Your task to perform on an android device: Toggle the flashlight Image 0: 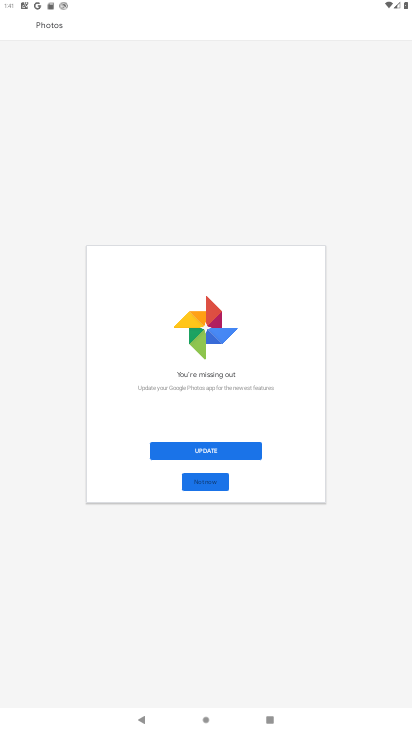
Step 0: drag from (301, 40) to (348, 640)
Your task to perform on an android device: Toggle the flashlight Image 1: 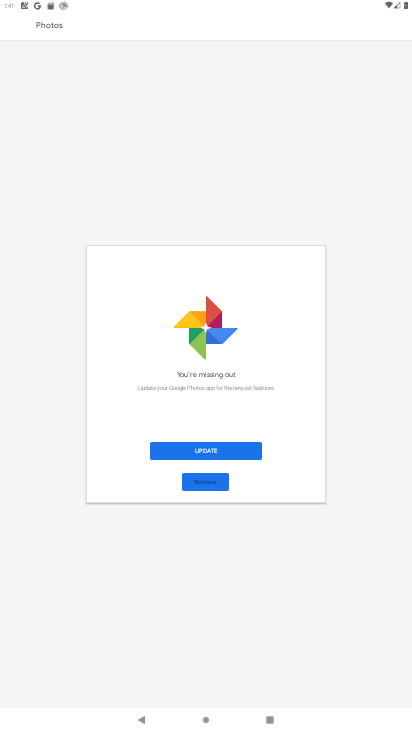
Step 1: task complete